Your task to perform on an android device: check android version Image 0: 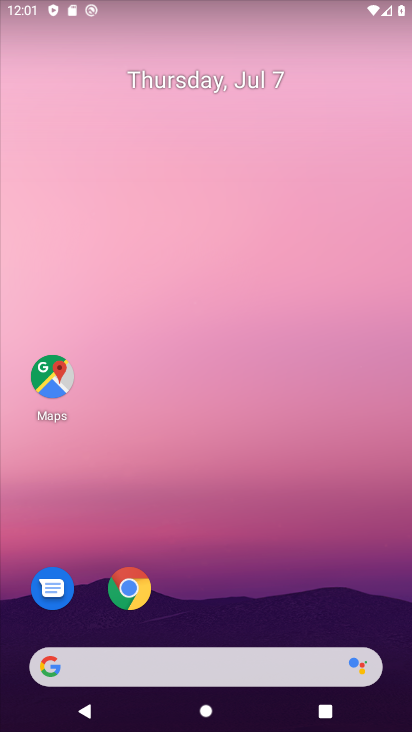
Step 0: drag from (194, 651) to (264, 220)
Your task to perform on an android device: check android version Image 1: 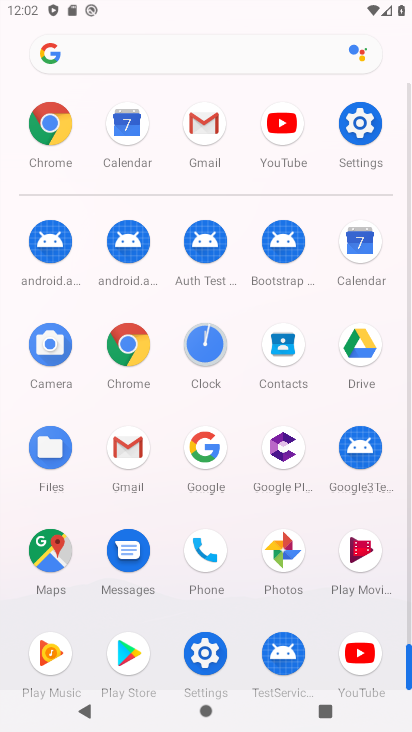
Step 1: click (201, 644)
Your task to perform on an android device: check android version Image 2: 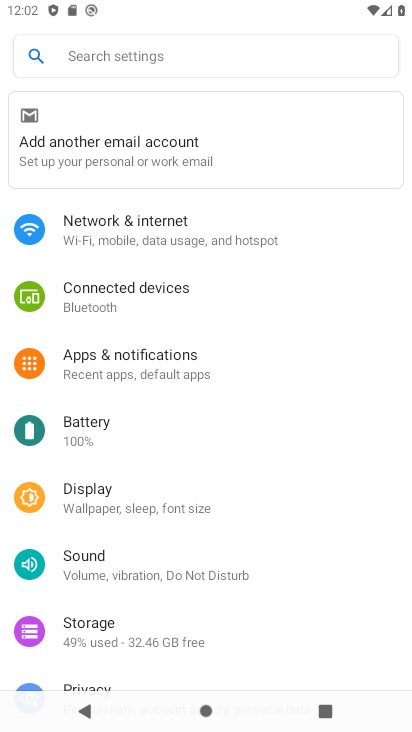
Step 2: drag from (222, 542) to (369, 117)
Your task to perform on an android device: check android version Image 3: 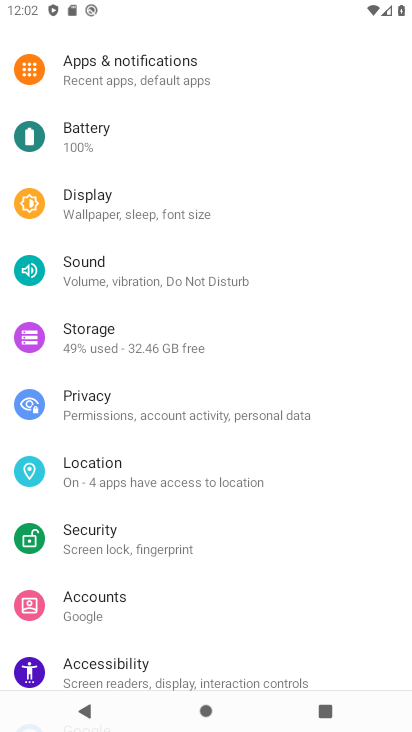
Step 3: drag from (202, 576) to (256, 112)
Your task to perform on an android device: check android version Image 4: 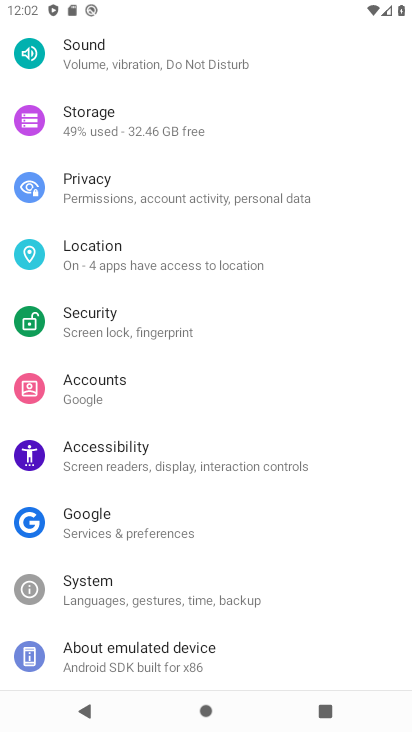
Step 4: click (177, 647)
Your task to perform on an android device: check android version Image 5: 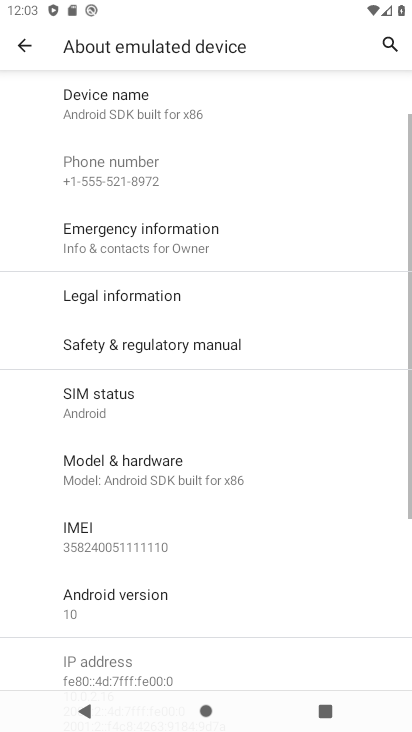
Step 5: drag from (215, 152) to (327, 725)
Your task to perform on an android device: check android version Image 6: 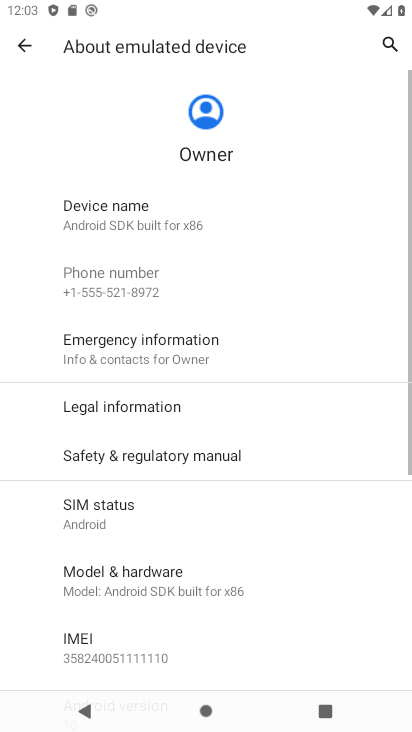
Step 6: drag from (143, 590) to (218, 265)
Your task to perform on an android device: check android version Image 7: 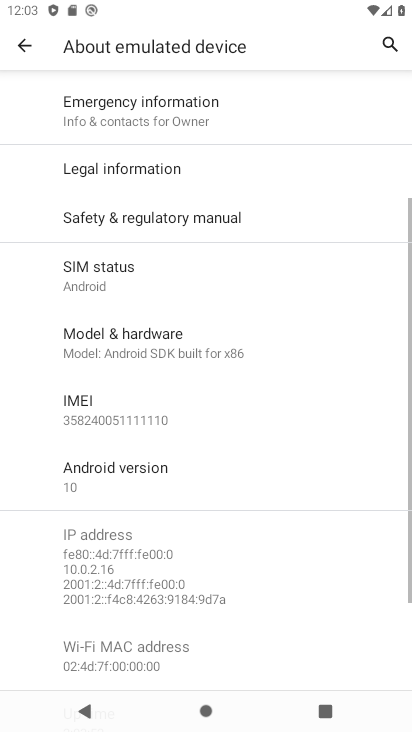
Step 7: click (168, 482)
Your task to perform on an android device: check android version Image 8: 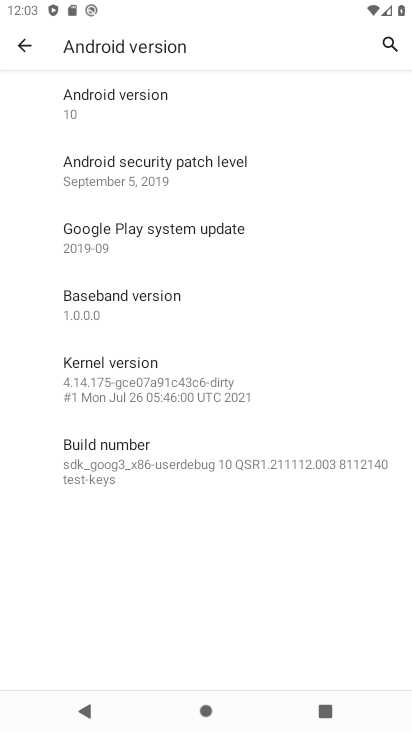
Step 8: click (154, 105)
Your task to perform on an android device: check android version Image 9: 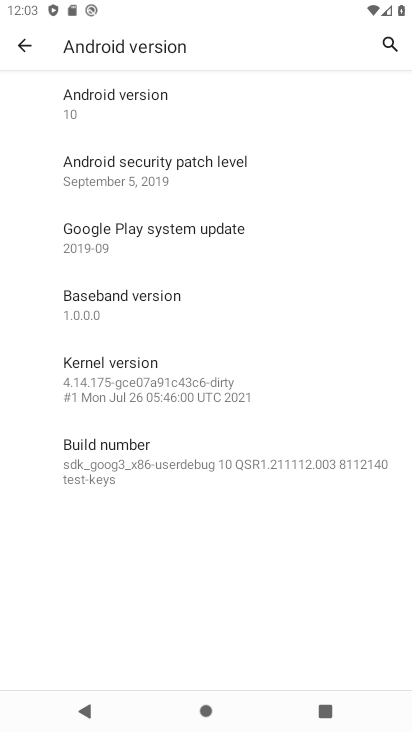
Step 9: task complete